Your task to perform on an android device: Open Google Image 0: 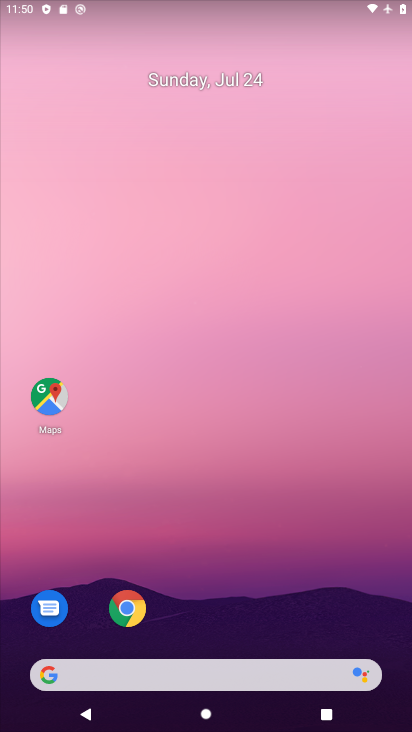
Step 0: drag from (234, 641) to (283, 209)
Your task to perform on an android device: Open Google Image 1: 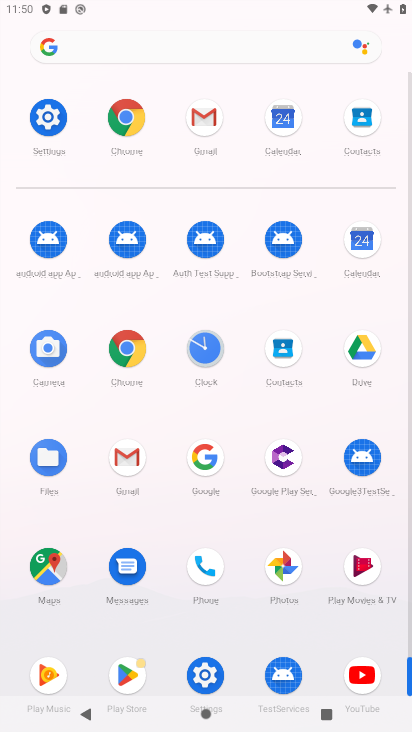
Step 1: click (212, 459)
Your task to perform on an android device: Open Google Image 2: 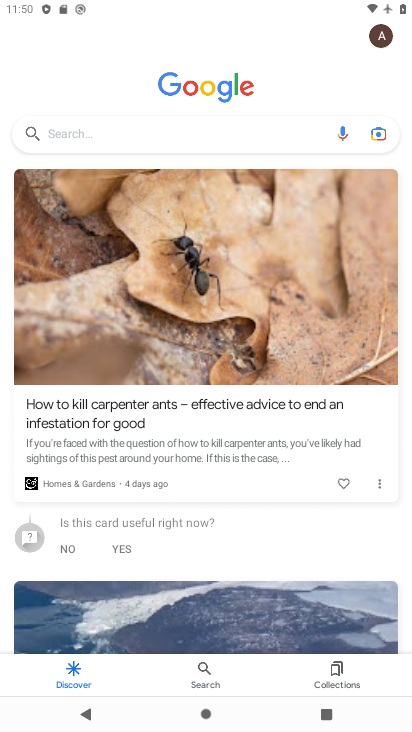
Step 2: click (205, 467)
Your task to perform on an android device: Open Google Image 3: 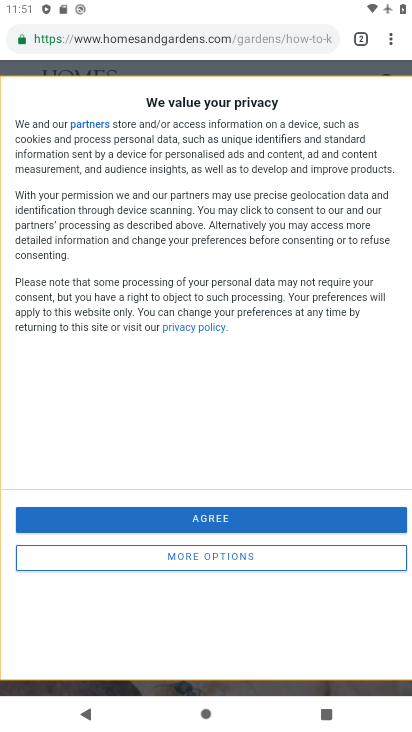
Step 3: task complete